Your task to perform on an android device: Show me some nice wallpapers for my desktop Image 0: 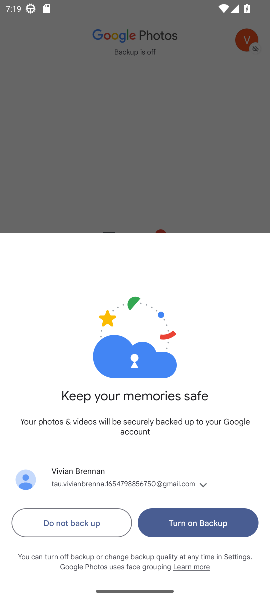
Step 0: press home button
Your task to perform on an android device: Show me some nice wallpapers for my desktop Image 1: 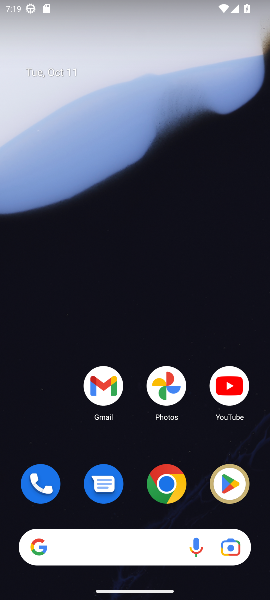
Step 1: drag from (114, 550) to (130, 87)
Your task to perform on an android device: Show me some nice wallpapers for my desktop Image 2: 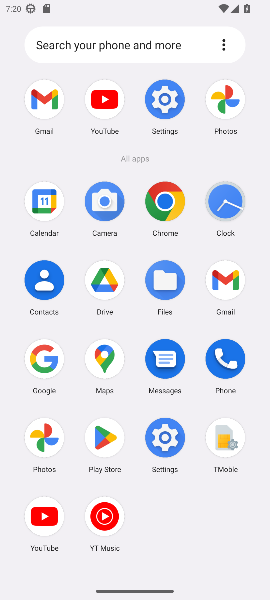
Step 2: click (164, 100)
Your task to perform on an android device: Show me some nice wallpapers for my desktop Image 3: 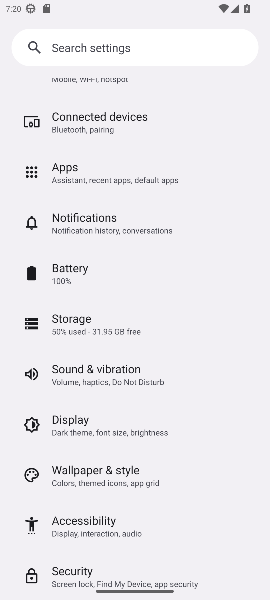
Step 3: click (77, 472)
Your task to perform on an android device: Show me some nice wallpapers for my desktop Image 4: 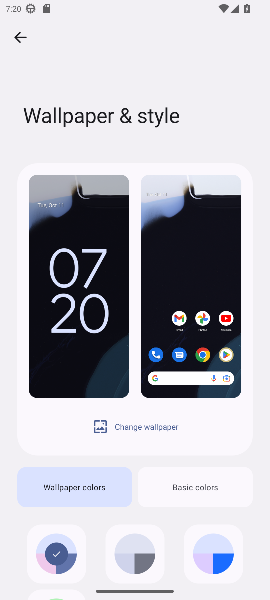
Step 4: click (191, 489)
Your task to perform on an android device: Show me some nice wallpapers for my desktop Image 5: 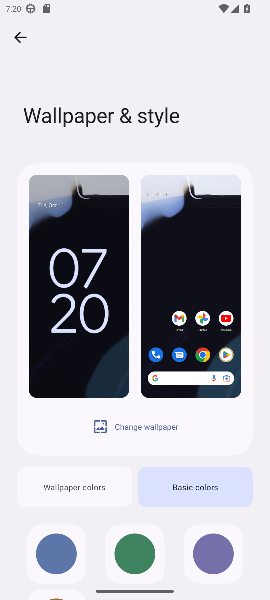
Step 5: task complete